Your task to perform on an android device: visit the assistant section in the google photos Image 0: 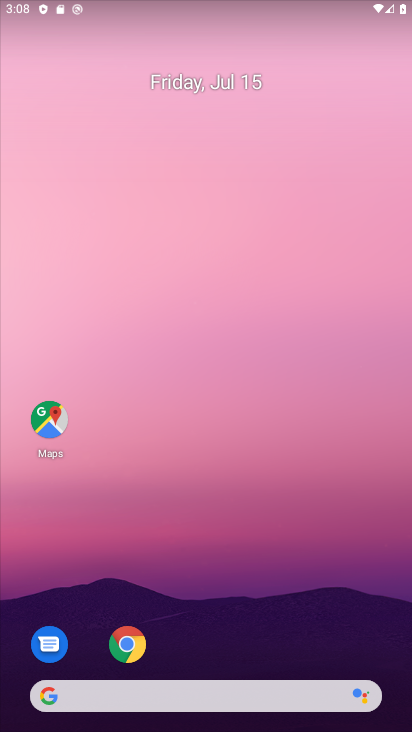
Step 0: drag from (305, 700) to (309, 139)
Your task to perform on an android device: visit the assistant section in the google photos Image 1: 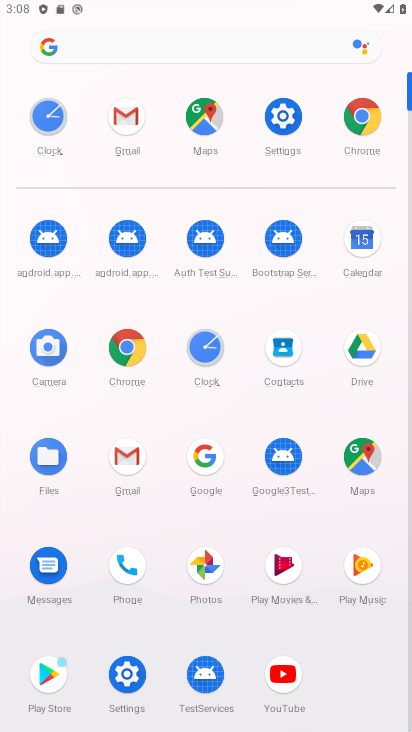
Step 1: click (209, 560)
Your task to perform on an android device: visit the assistant section in the google photos Image 2: 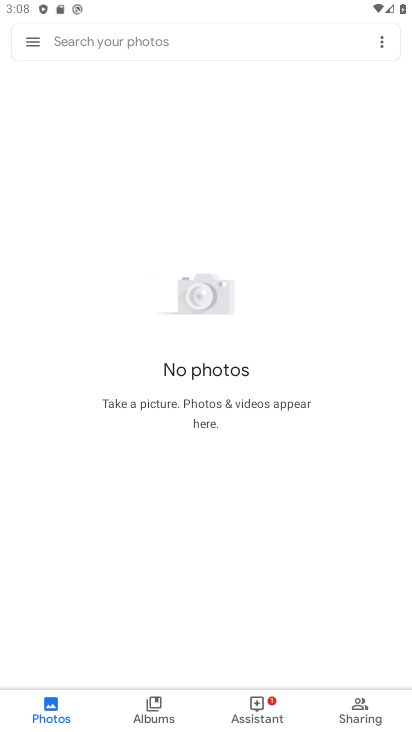
Step 2: click (267, 694)
Your task to perform on an android device: visit the assistant section in the google photos Image 3: 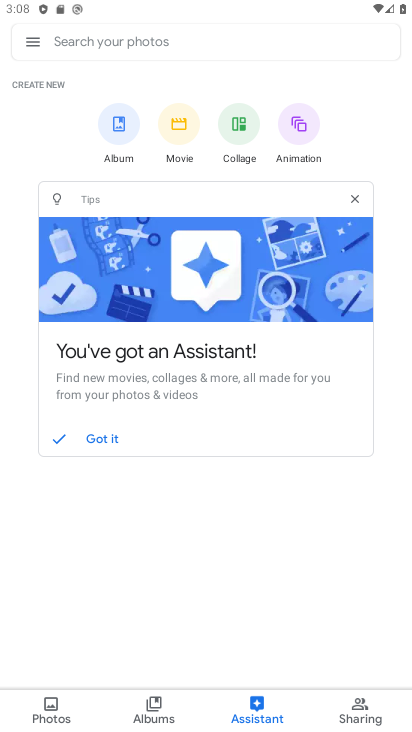
Step 3: task complete